Your task to perform on an android device: turn off javascript in the chrome app Image 0: 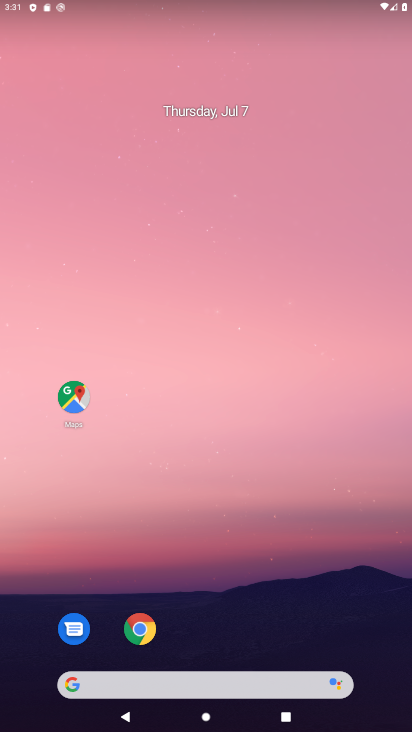
Step 0: click (145, 629)
Your task to perform on an android device: turn off javascript in the chrome app Image 1: 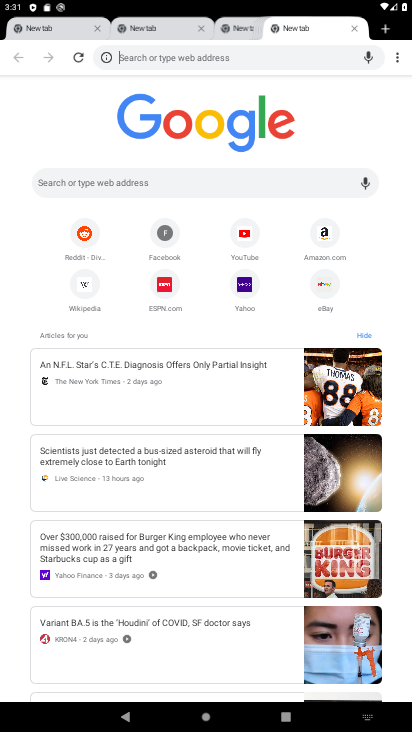
Step 1: click (394, 54)
Your task to perform on an android device: turn off javascript in the chrome app Image 2: 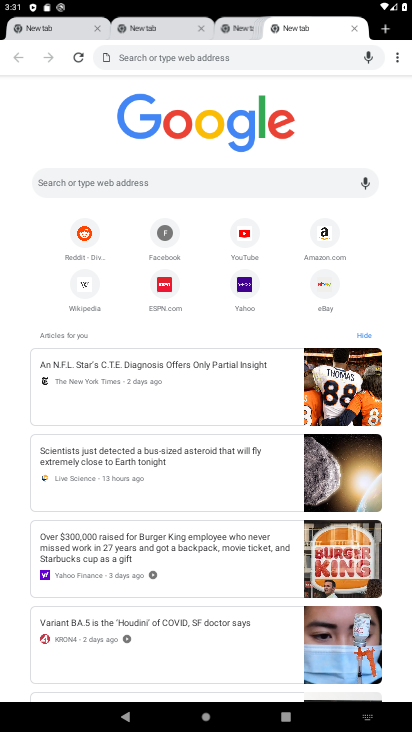
Step 2: click (393, 63)
Your task to perform on an android device: turn off javascript in the chrome app Image 3: 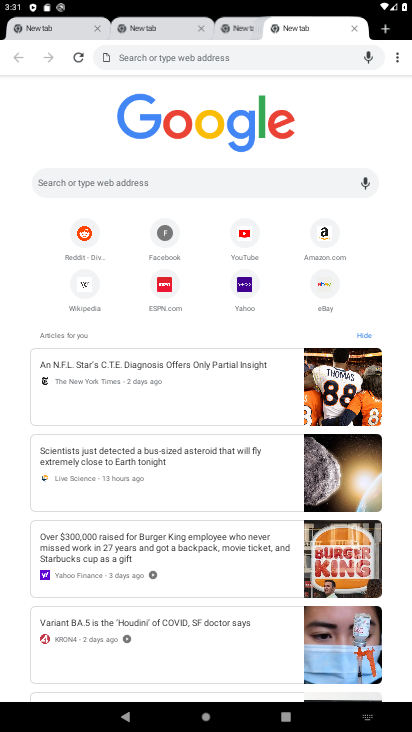
Step 3: click (400, 63)
Your task to perform on an android device: turn off javascript in the chrome app Image 4: 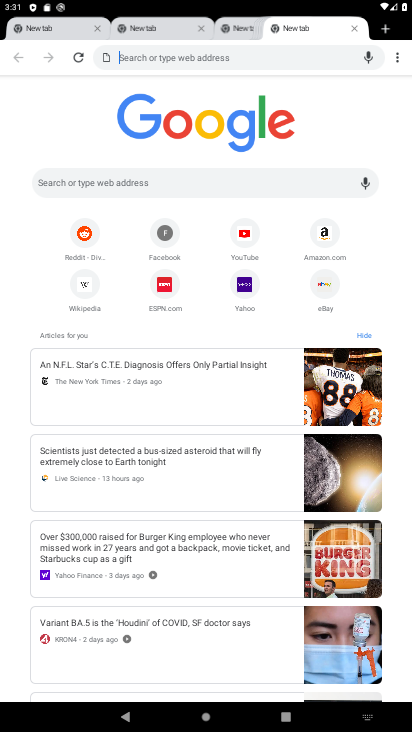
Step 4: click (398, 52)
Your task to perform on an android device: turn off javascript in the chrome app Image 5: 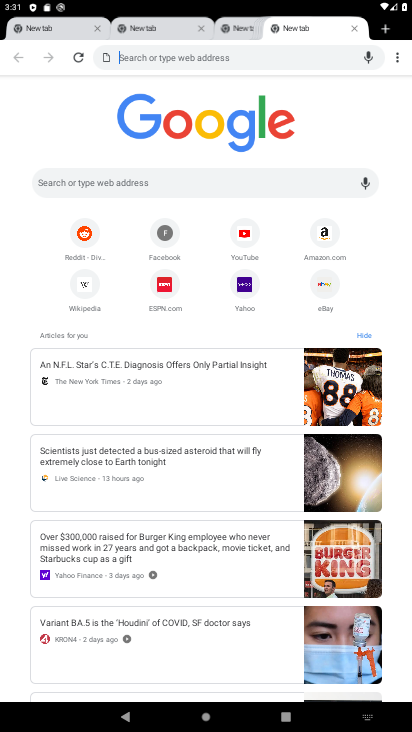
Step 5: click (398, 52)
Your task to perform on an android device: turn off javascript in the chrome app Image 6: 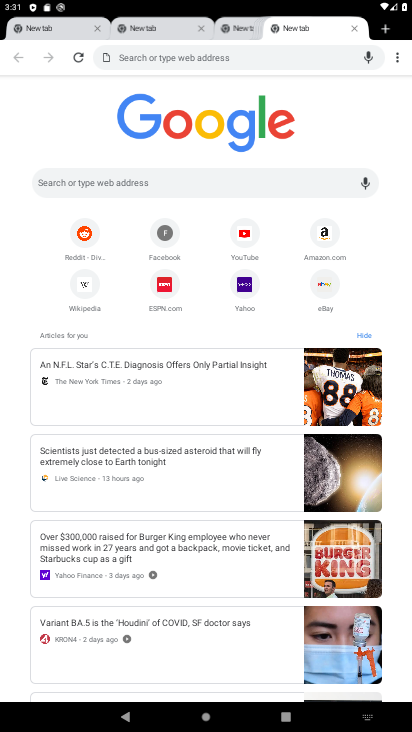
Step 6: click (391, 56)
Your task to perform on an android device: turn off javascript in the chrome app Image 7: 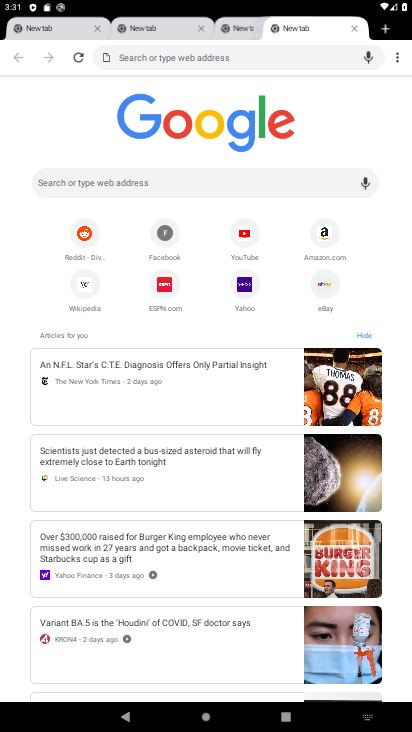
Step 7: task complete